Your task to perform on an android device: Search for Mexican restaurants on Maps Image 0: 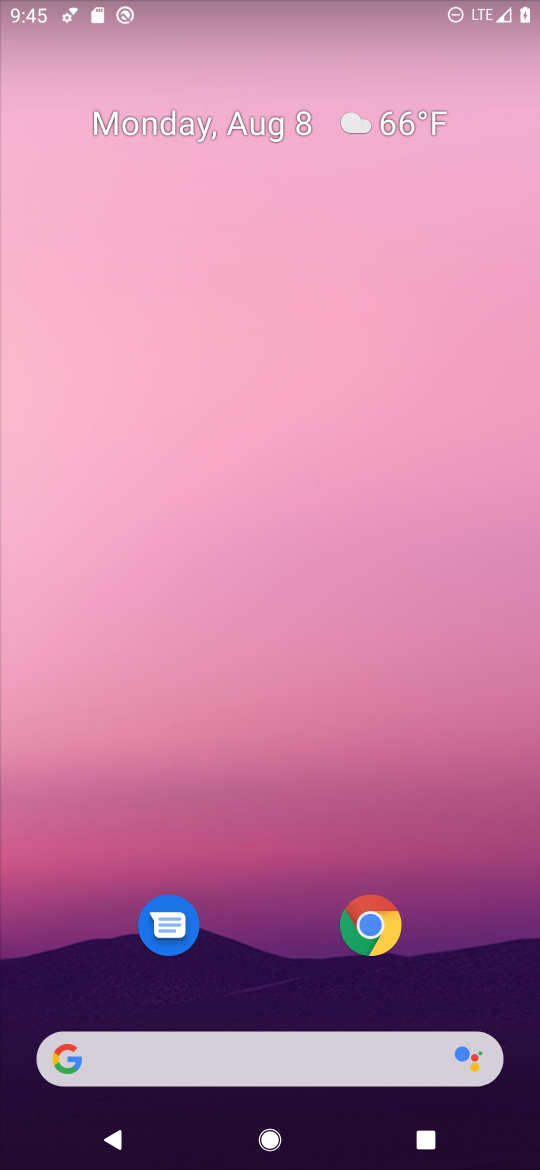
Step 0: drag from (251, 930) to (139, 1)
Your task to perform on an android device: Search for Mexican restaurants on Maps Image 1: 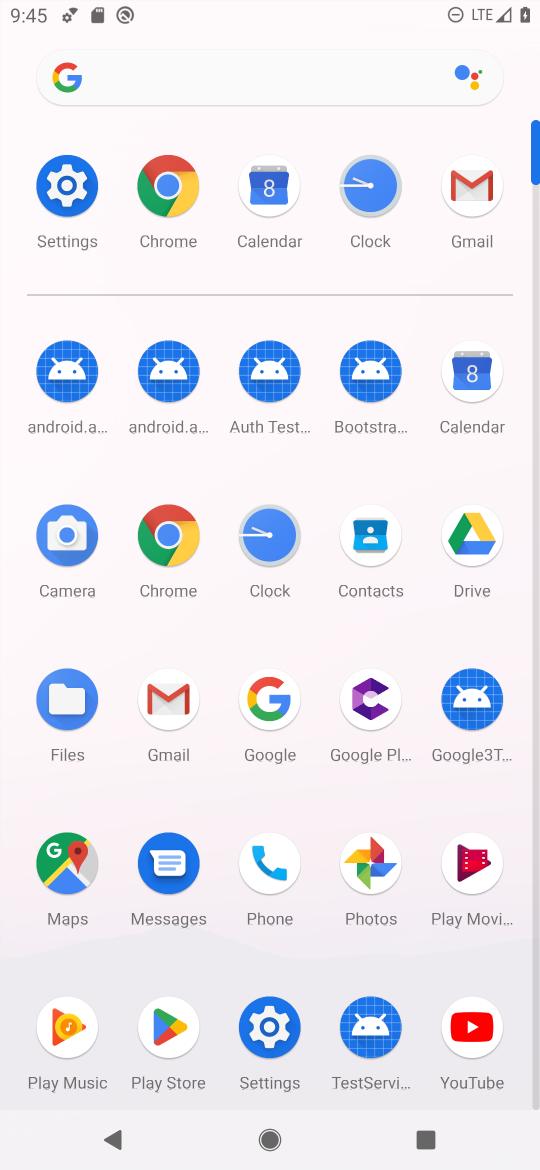
Step 1: click (61, 854)
Your task to perform on an android device: Search for Mexican restaurants on Maps Image 2: 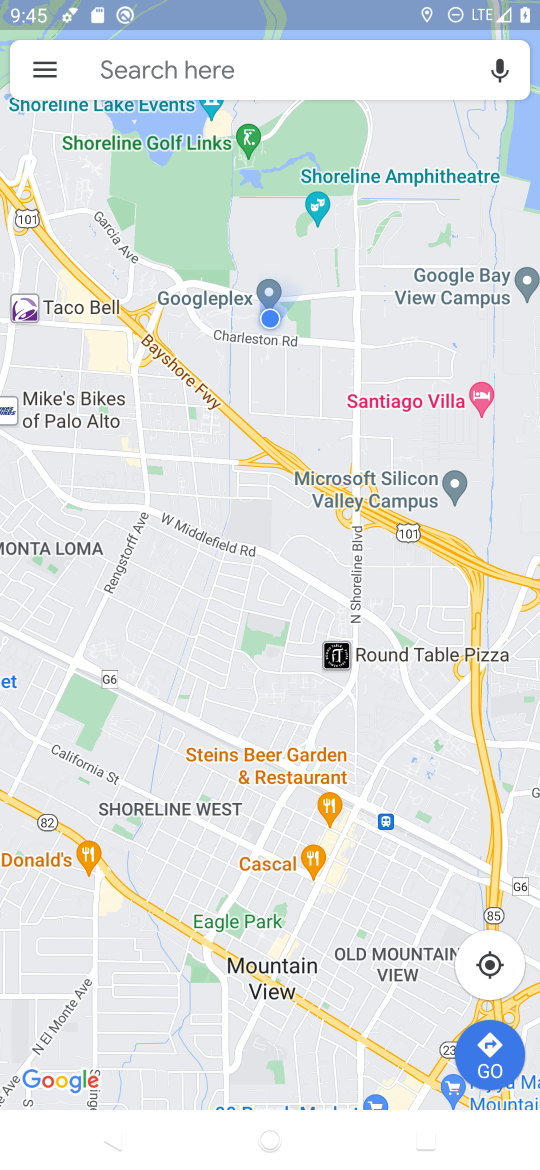
Step 2: click (237, 54)
Your task to perform on an android device: Search for Mexican restaurants on Maps Image 3: 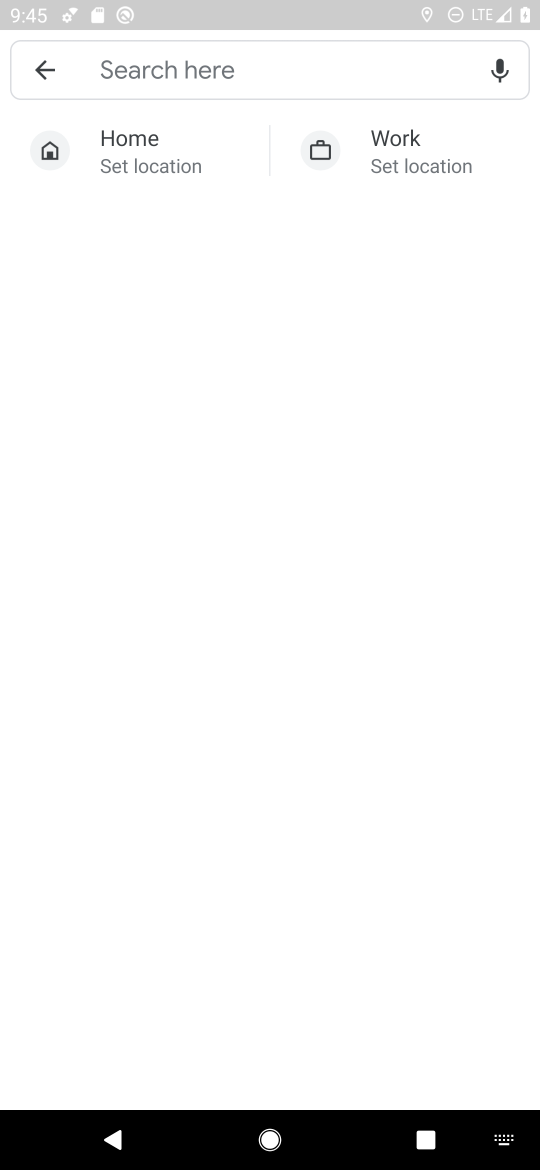
Step 3: type "Mexican restaurants"
Your task to perform on an android device: Search for Mexican restaurants on Maps Image 4: 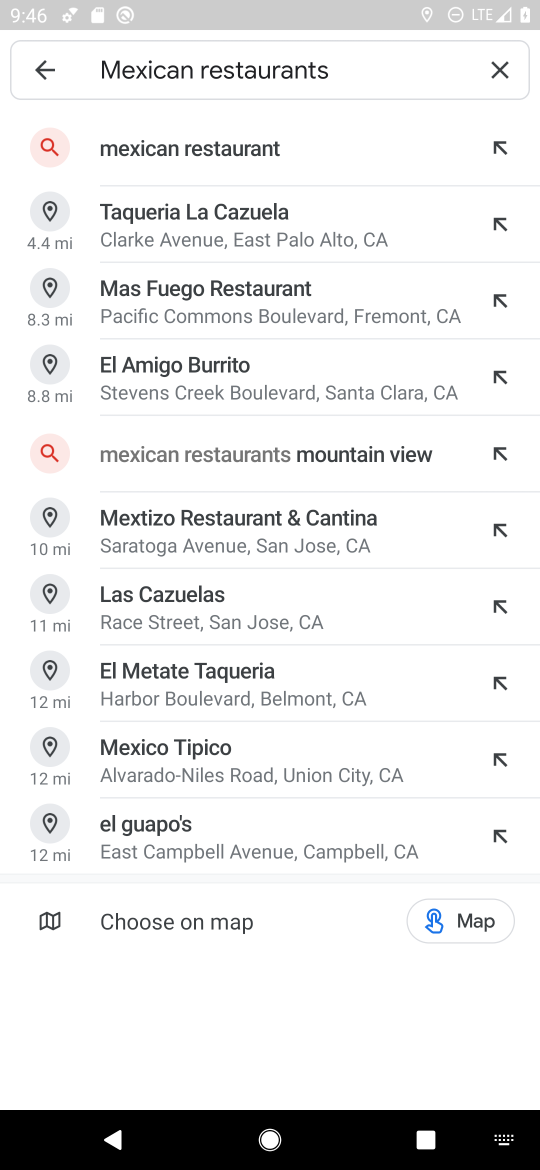
Step 4: press enter
Your task to perform on an android device: Search for Mexican restaurants on Maps Image 5: 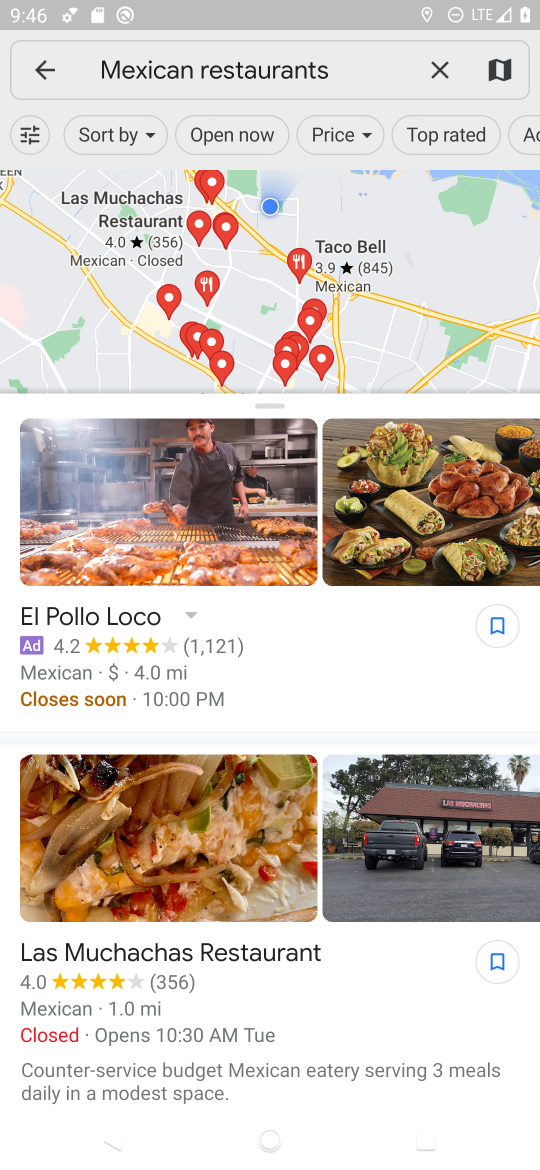
Step 5: task complete